Your task to perform on an android device: open device folders in google photos Image 0: 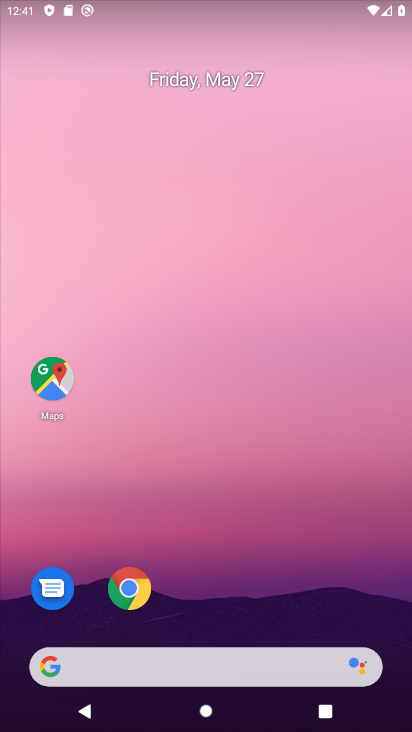
Step 0: drag from (199, 612) to (371, 551)
Your task to perform on an android device: open device folders in google photos Image 1: 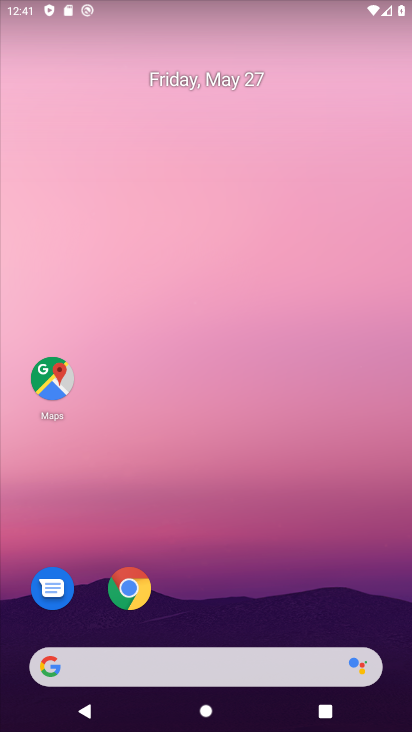
Step 1: drag from (232, 636) to (348, 53)
Your task to perform on an android device: open device folders in google photos Image 2: 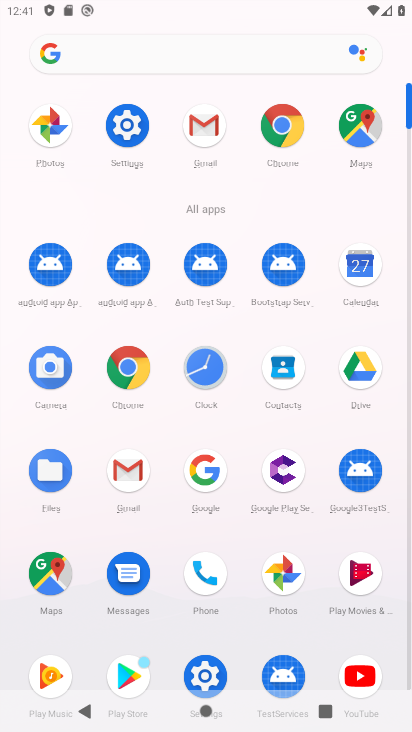
Step 2: click (275, 580)
Your task to perform on an android device: open device folders in google photos Image 3: 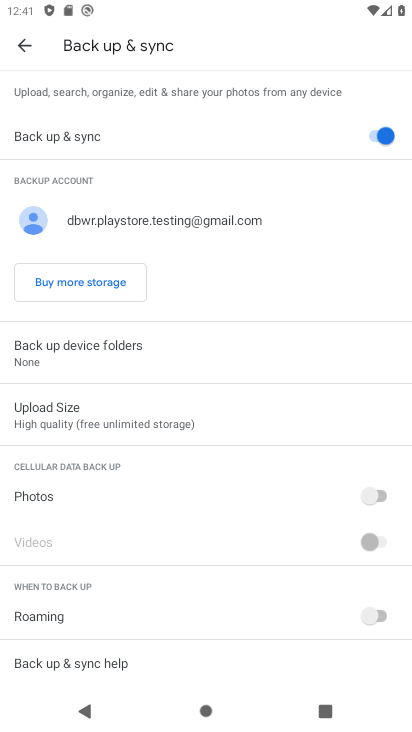
Step 3: click (18, 53)
Your task to perform on an android device: open device folders in google photos Image 4: 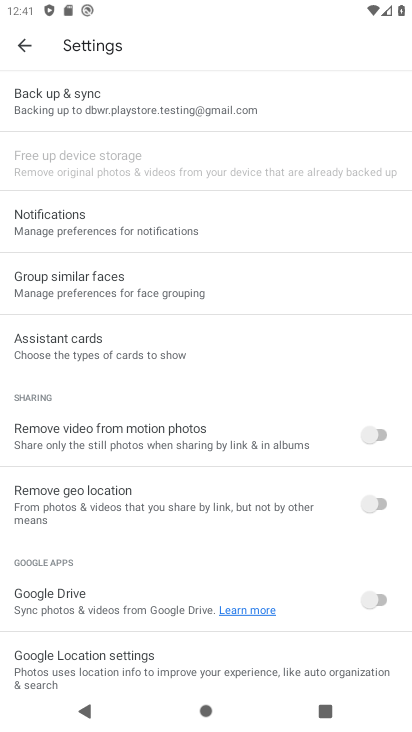
Step 4: click (31, 42)
Your task to perform on an android device: open device folders in google photos Image 5: 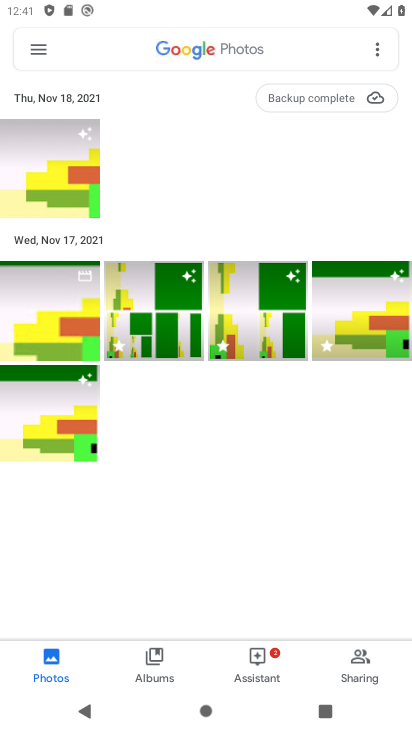
Step 5: click (31, 42)
Your task to perform on an android device: open device folders in google photos Image 6: 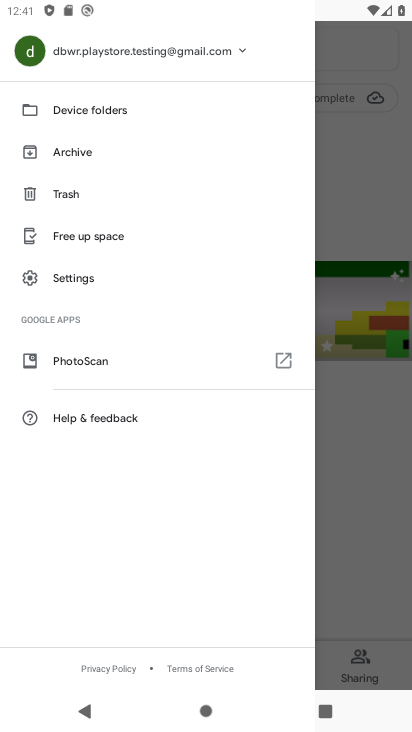
Step 6: click (84, 97)
Your task to perform on an android device: open device folders in google photos Image 7: 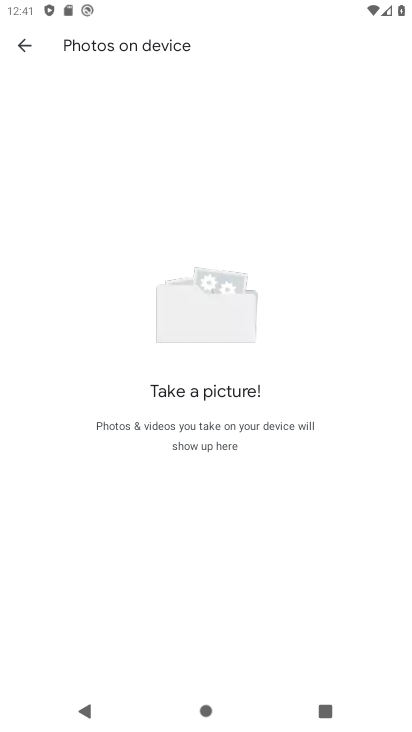
Step 7: task complete